Your task to perform on an android device: open the mobile data screen to see how much data has been used Image 0: 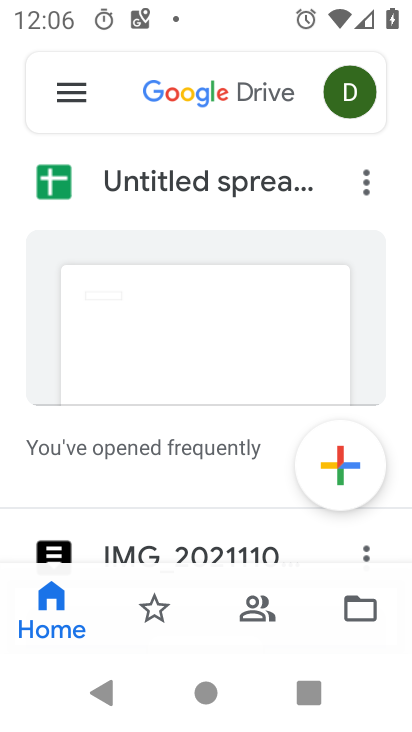
Step 0: press home button
Your task to perform on an android device: open the mobile data screen to see how much data has been used Image 1: 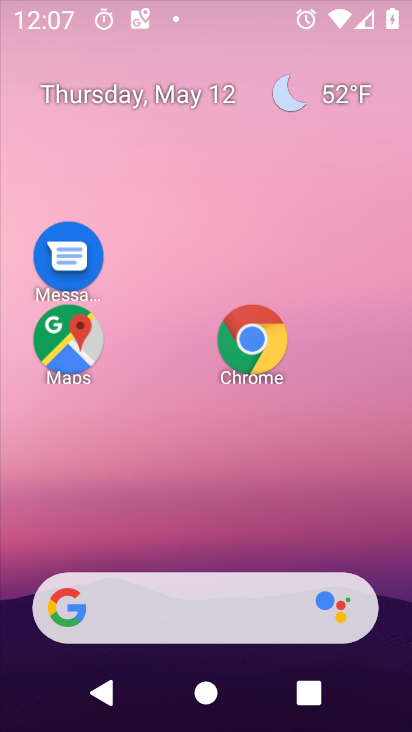
Step 1: drag from (203, 496) to (179, 60)
Your task to perform on an android device: open the mobile data screen to see how much data has been used Image 2: 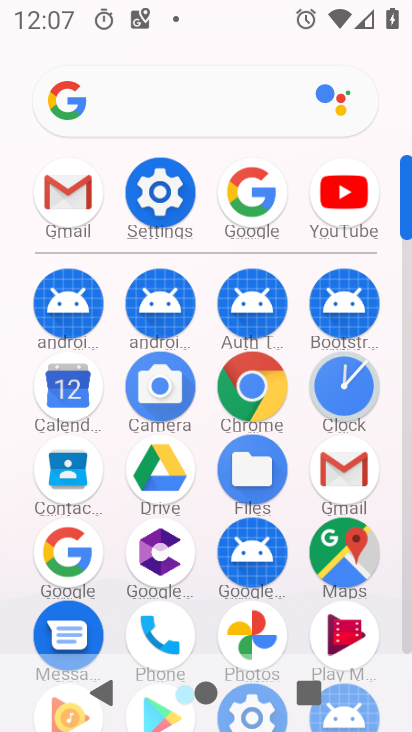
Step 2: click (155, 205)
Your task to perform on an android device: open the mobile data screen to see how much data has been used Image 3: 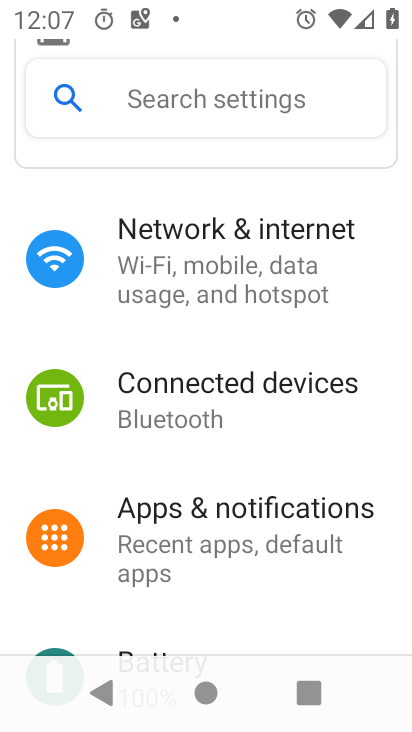
Step 3: click (211, 247)
Your task to perform on an android device: open the mobile data screen to see how much data has been used Image 4: 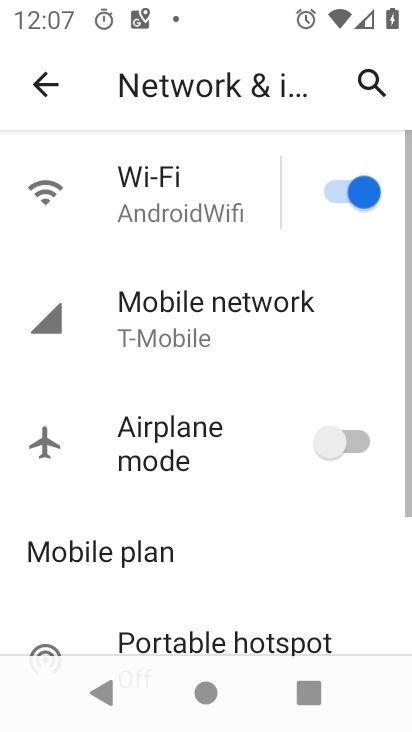
Step 4: click (196, 315)
Your task to perform on an android device: open the mobile data screen to see how much data has been used Image 5: 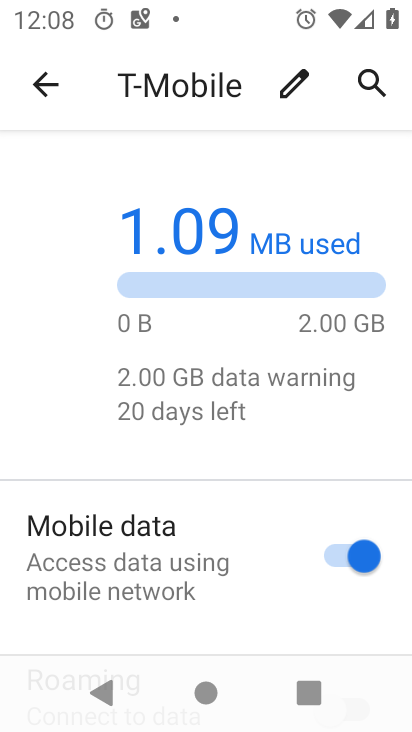
Step 5: task complete